Your task to perform on an android device: Clear the shopping cart on target.com. Image 0: 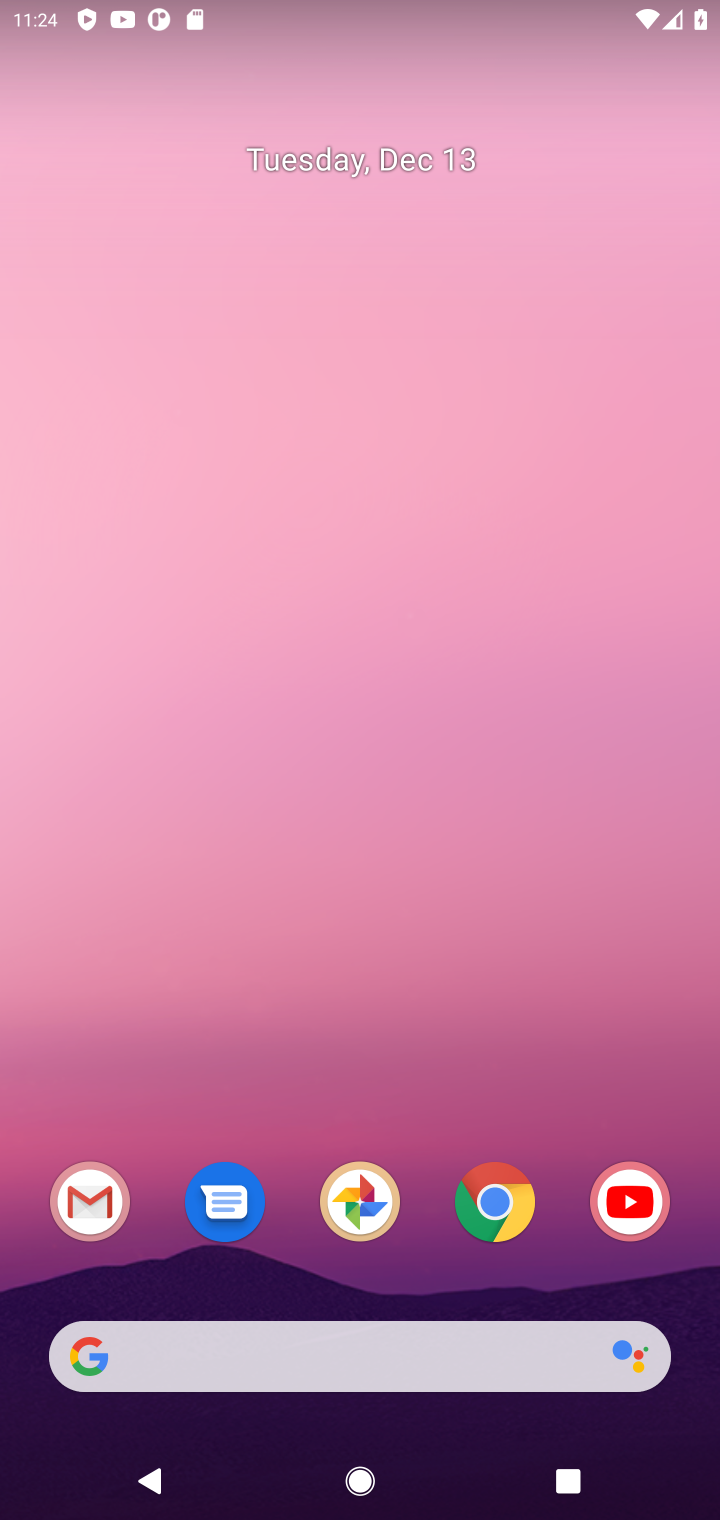
Step 0: click (488, 1230)
Your task to perform on an android device: Clear the shopping cart on target.com. Image 1: 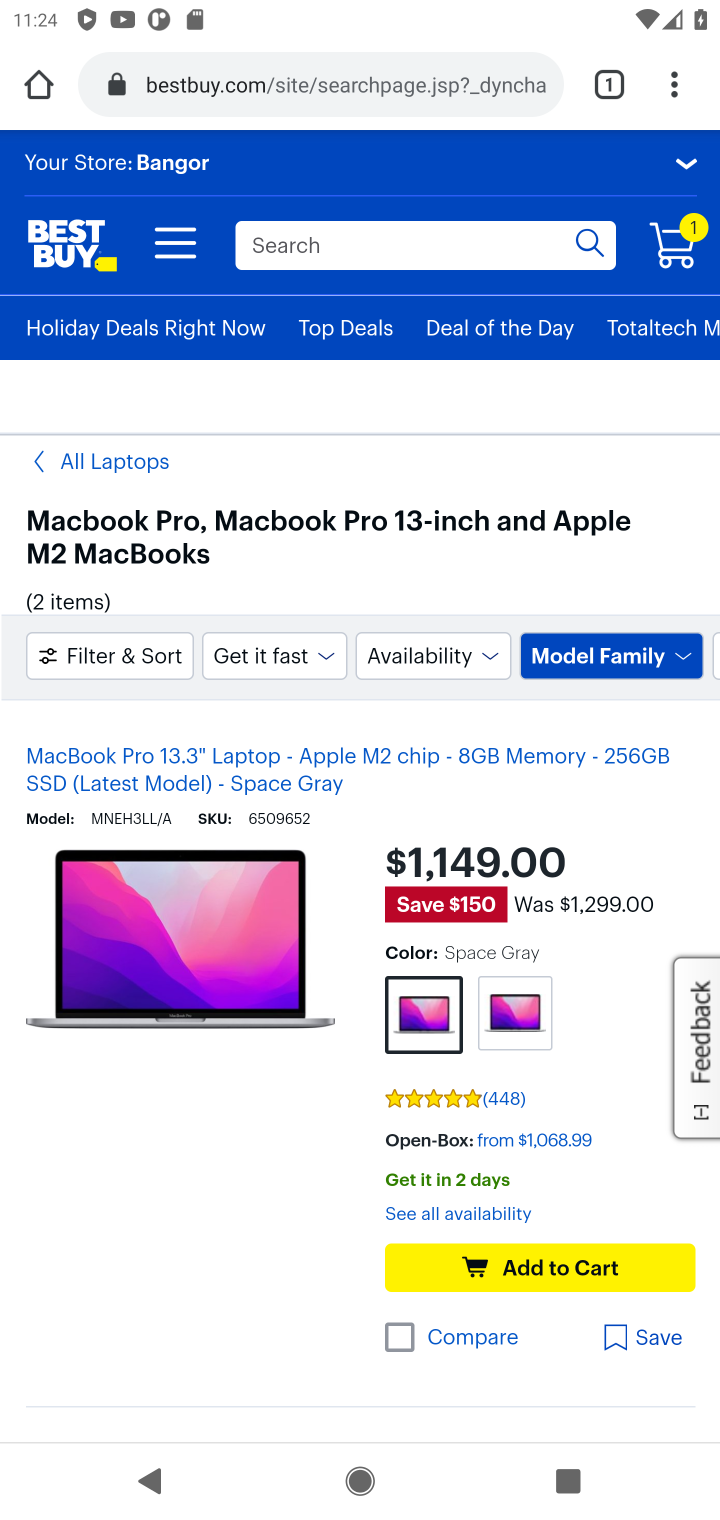
Step 1: click (344, 79)
Your task to perform on an android device: Clear the shopping cart on target.com. Image 2: 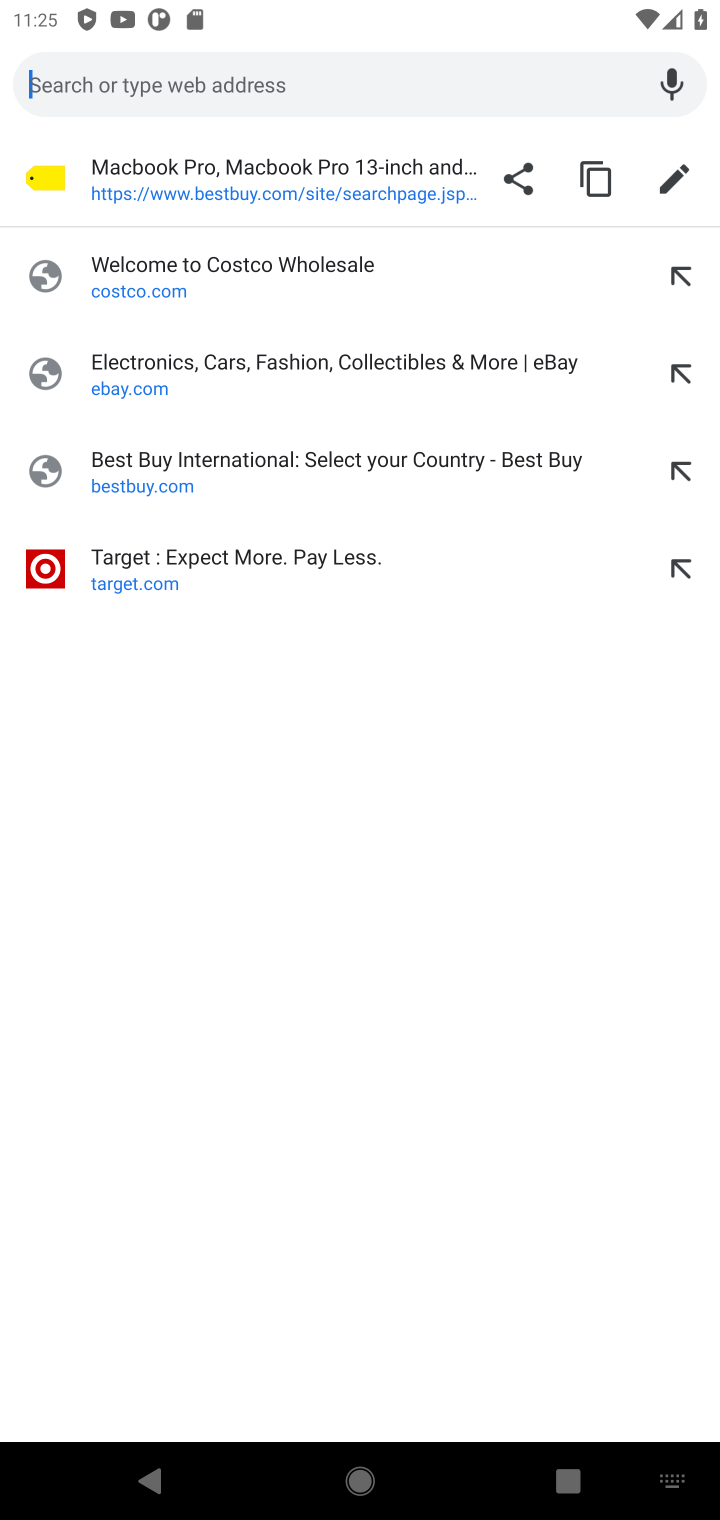
Step 2: type "target"
Your task to perform on an android device: Clear the shopping cart on target.com. Image 3: 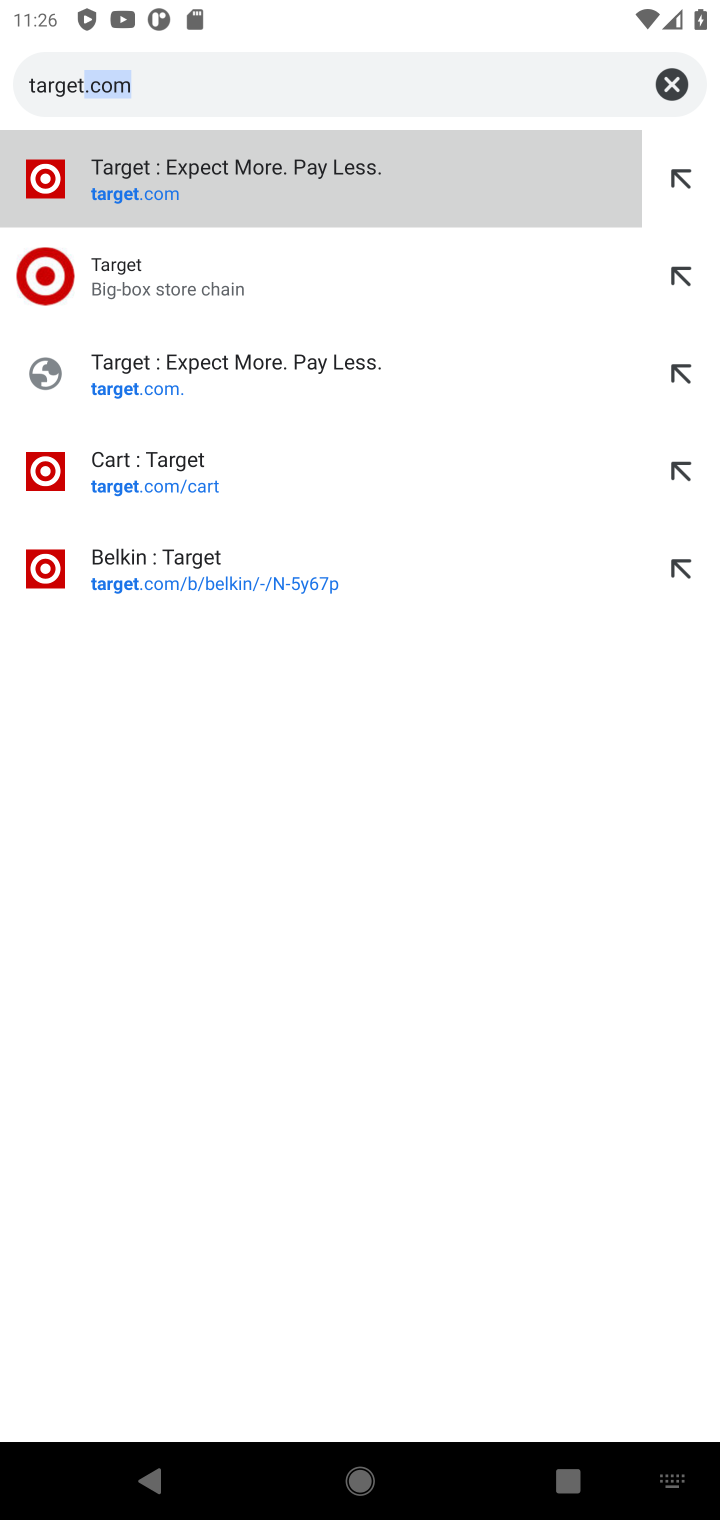
Step 3: click (194, 179)
Your task to perform on an android device: Clear the shopping cart on target.com. Image 4: 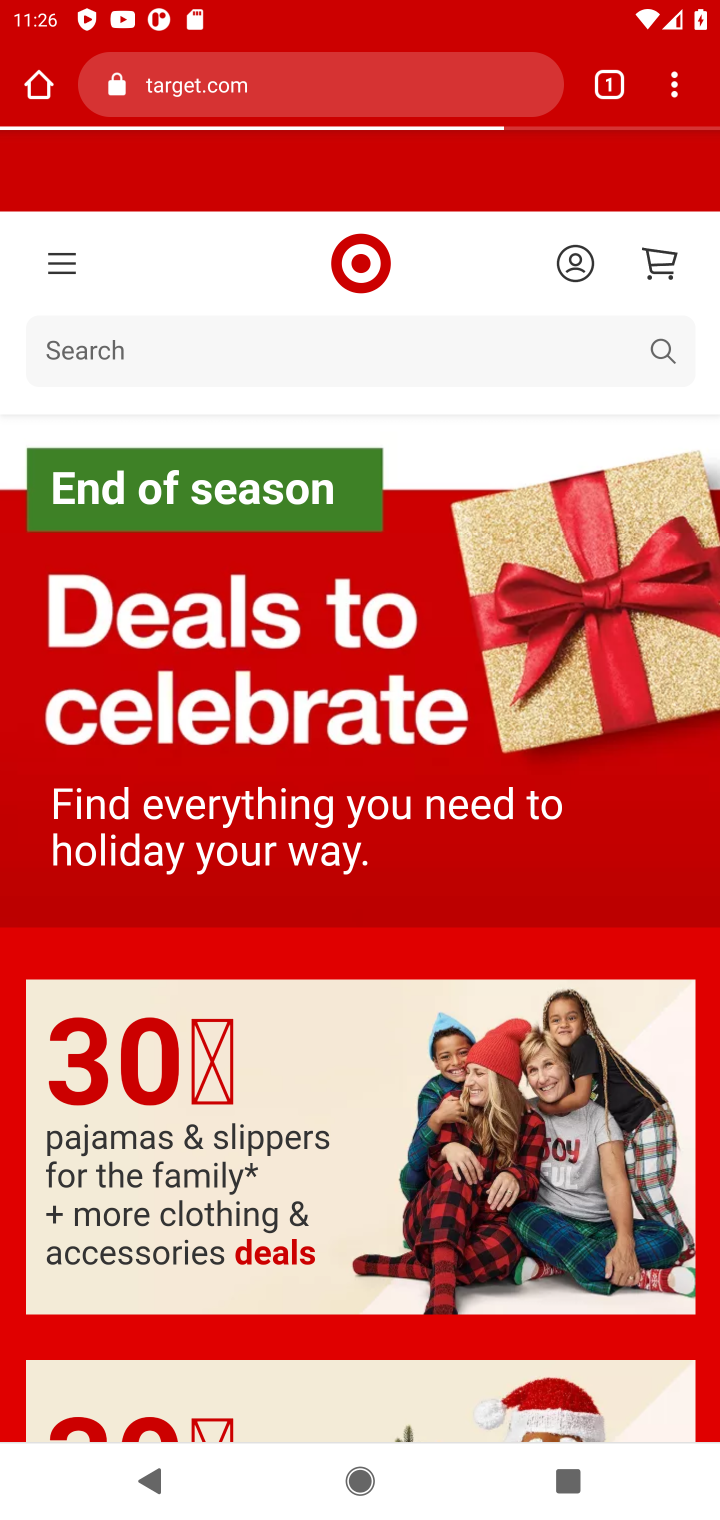
Step 4: click (653, 255)
Your task to perform on an android device: Clear the shopping cart on target.com. Image 5: 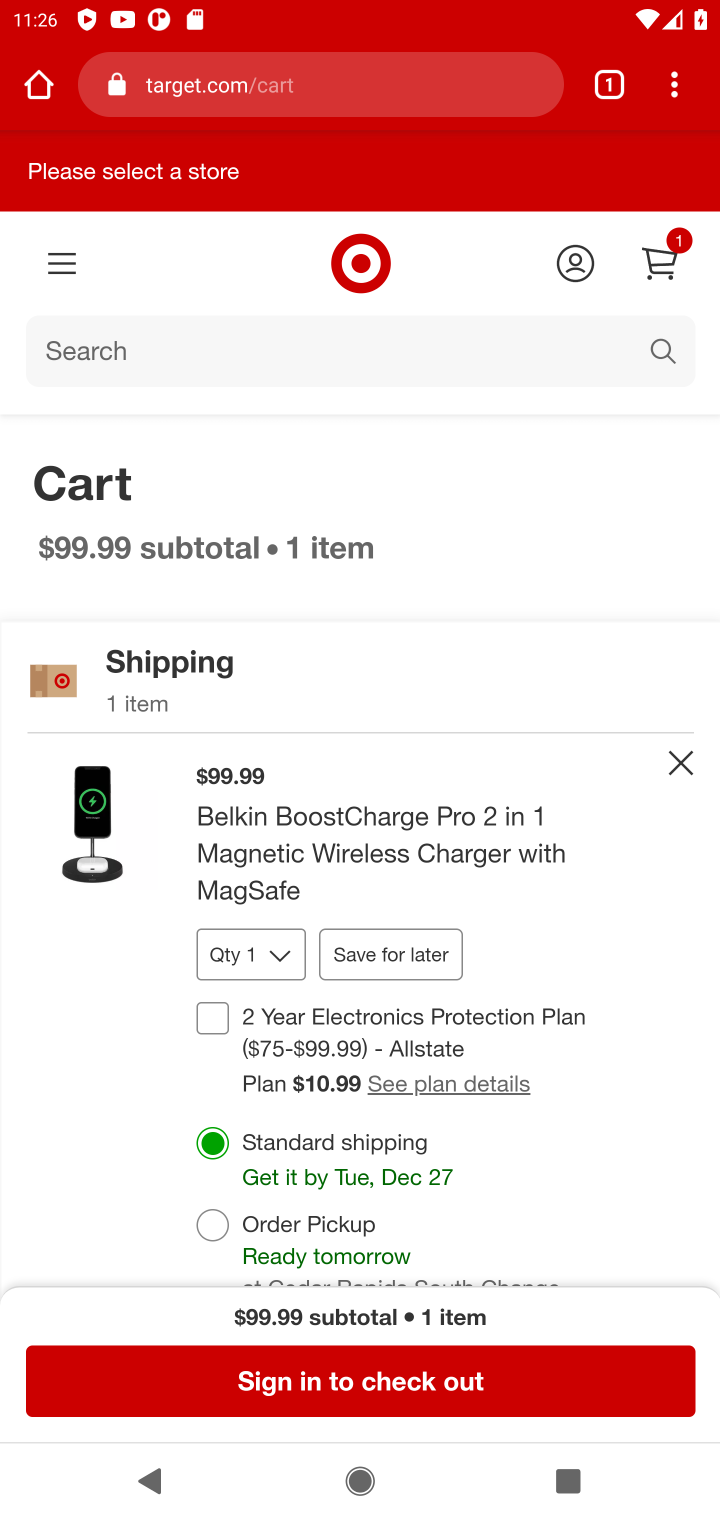
Step 5: drag from (430, 697) to (372, 335)
Your task to perform on an android device: Clear the shopping cart on target.com. Image 6: 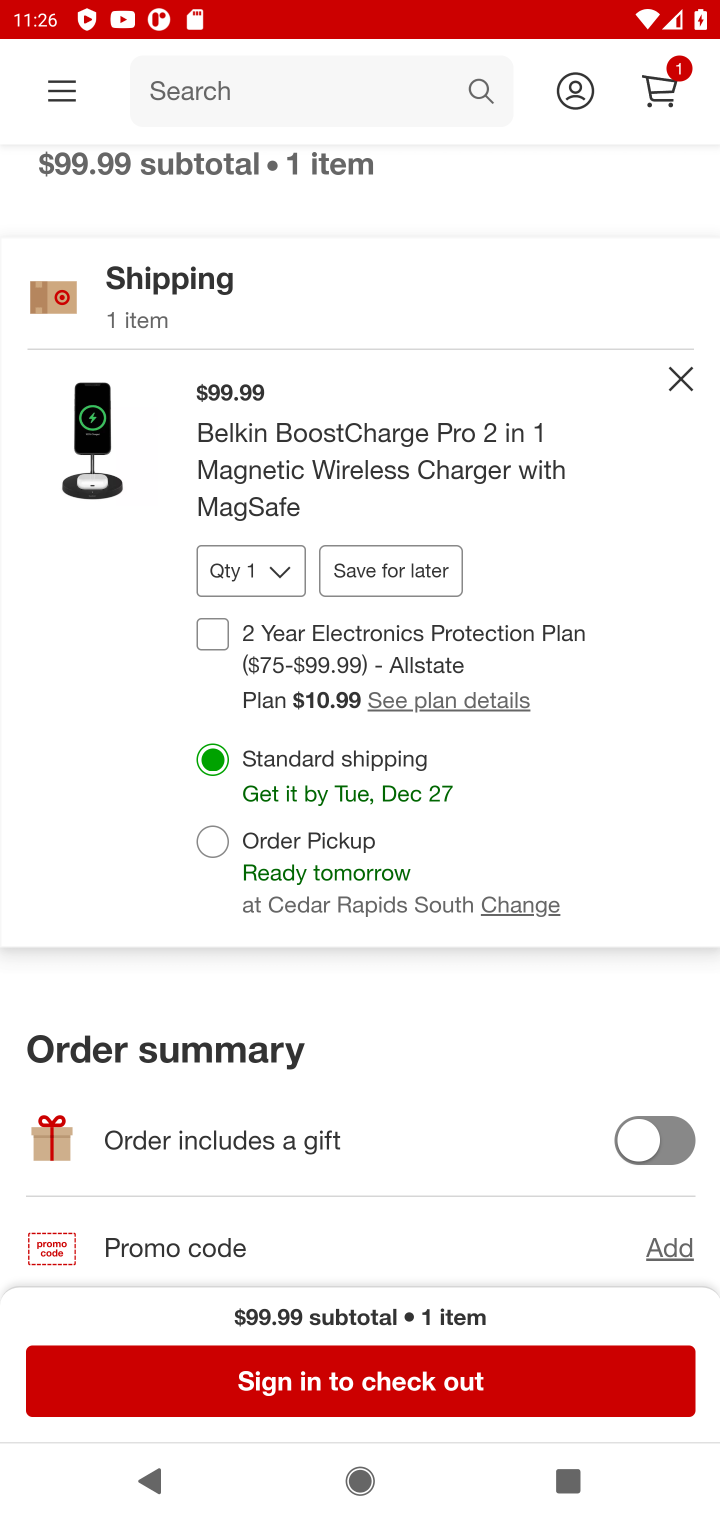
Step 6: click (670, 379)
Your task to perform on an android device: Clear the shopping cart on target.com. Image 7: 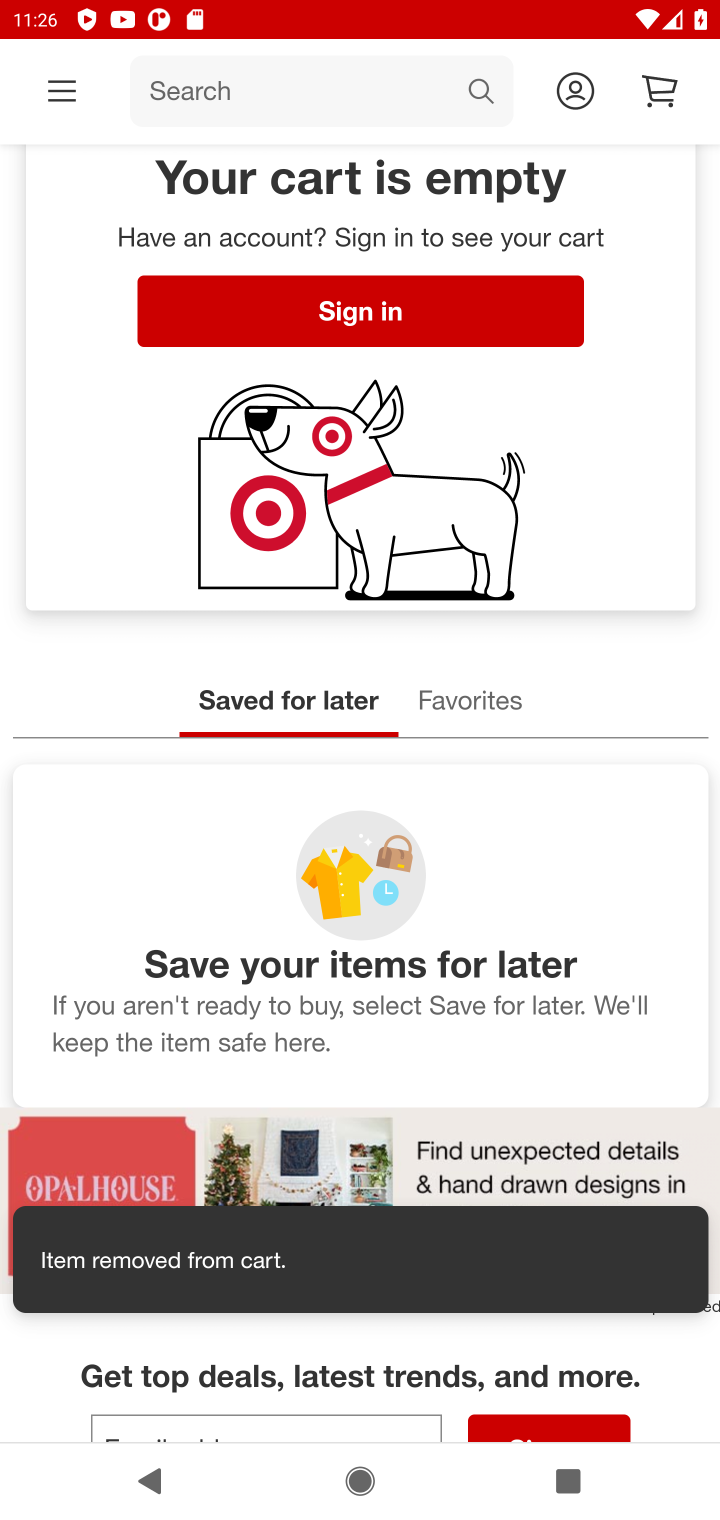
Step 7: task complete